Your task to perform on an android device: empty trash in the gmail app Image 0: 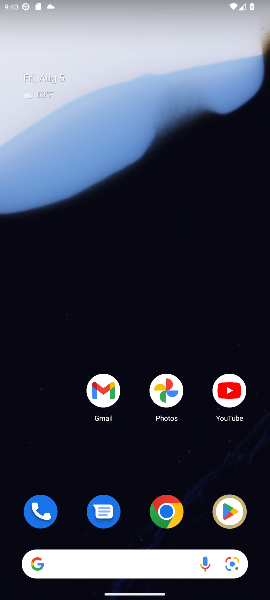
Step 0: click (104, 391)
Your task to perform on an android device: empty trash in the gmail app Image 1: 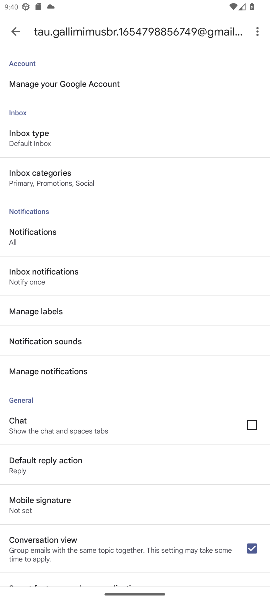
Step 1: press back button
Your task to perform on an android device: empty trash in the gmail app Image 2: 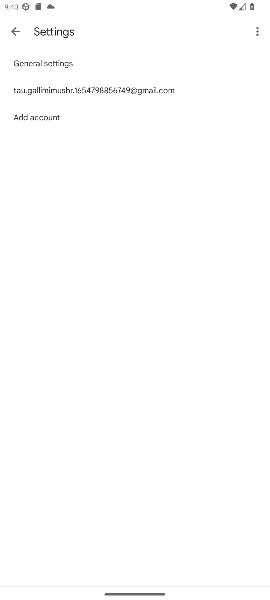
Step 2: press back button
Your task to perform on an android device: empty trash in the gmail app Image 3: 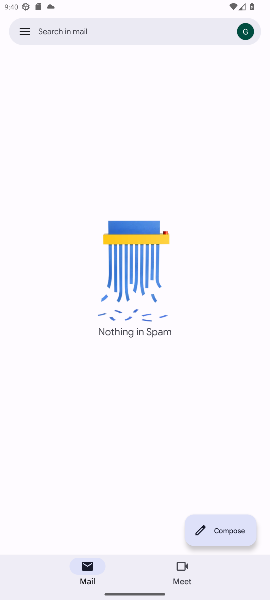
Step 3: click (24, 32)
Your task to perform on an android device: empty trash in the gmail app Image 4: 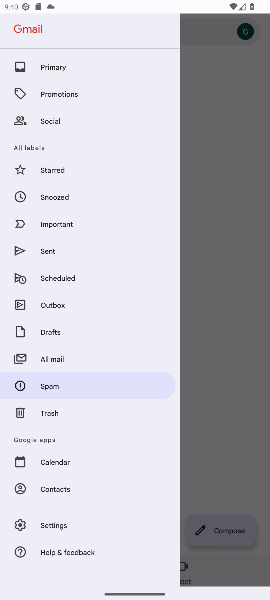
Step 4: click (48, 412)
Your task to perform on an android device: empty trash in the gmail app Image 5: 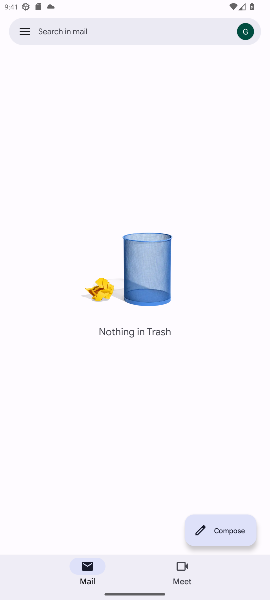
Step 5: task complete